Your task to perform on an android device: Open the Play Movies app and select the watchlist tab. Image 0: 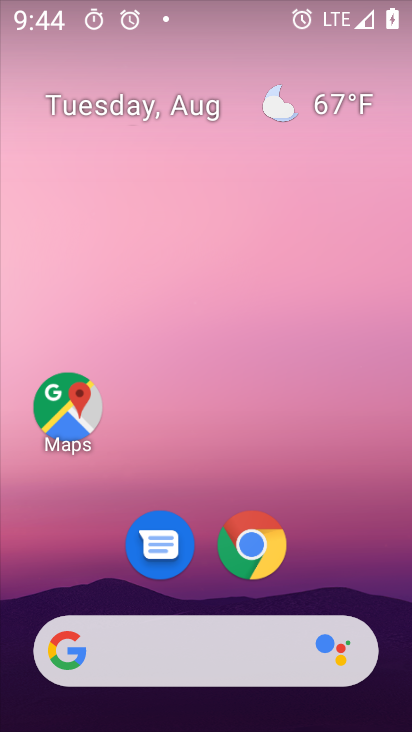
Step 0: drag from (201, 525) to (198, 139)
Your task to perform on an android device: Open the Play Movies app and select the watchlist tab. Image 1: 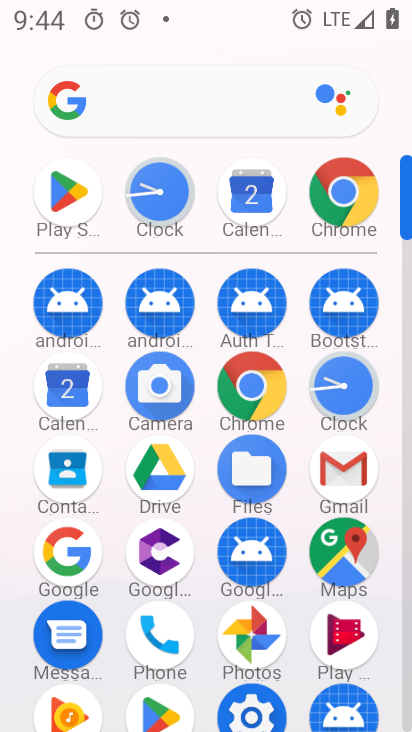
Step 1: drag from (237, 526) to (235, 295)
Your task to perform on an android device: Open the Play Movies app and select the watchlist tab. Image 2: 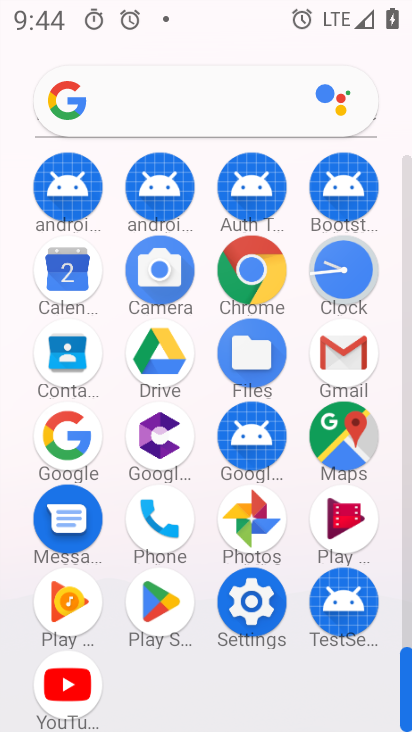
Step 2: click (334, 521)
Your task to perform on an android device: Open the Play Movies app and select the watchlist tab. Image 3: 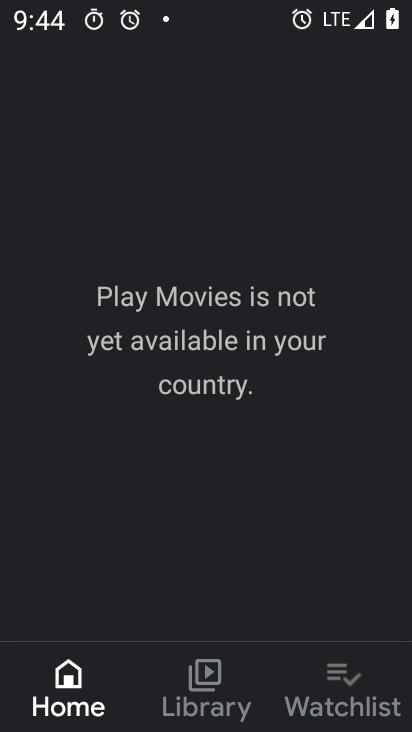
Step 3: click (349, 699)
Your task to perform on an android device: Open the Play Movies app and select the watchlist tab. Image 4: 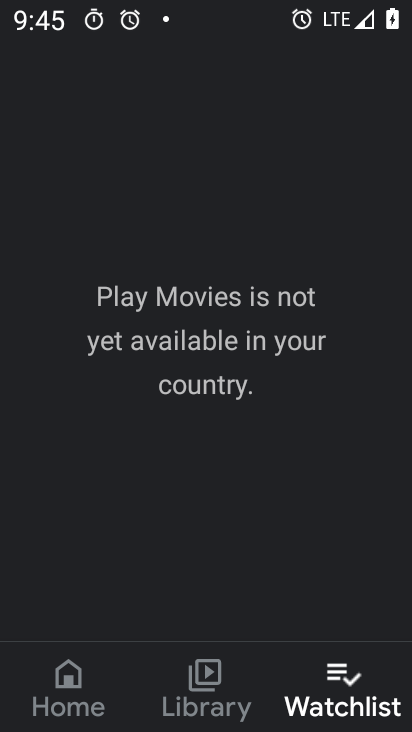
Step 4: task complete